Your task to perform on an android device: Play the last video I watched on Youtube Image 0: 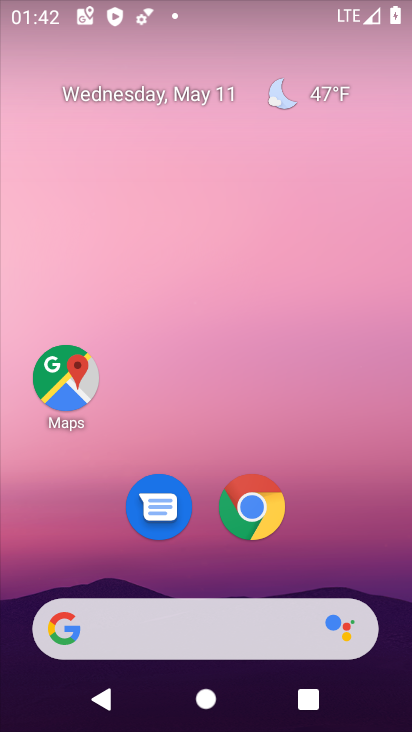
Step 0: drag from (327, 554) to (198, 3)
Your task to perform on an android device: Play the last video I watched on Youtube Image 1: 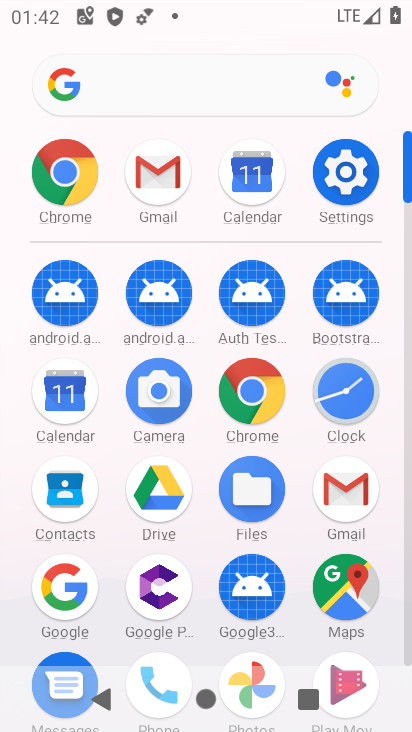
Step 1: drag from (279, 643) to (219, 284)
Your task to perform on an android device: Play the last video I watched on Youtube Image 2: 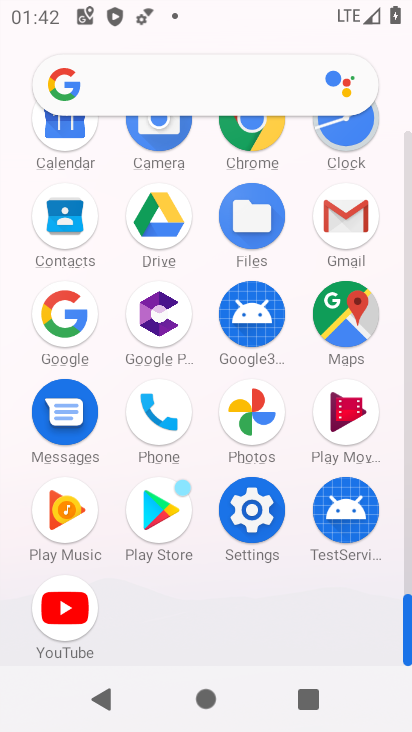
Step 2: click (60, 607)
Your task to perform on an android device: Play the last video I watched on Youtube Image 3: 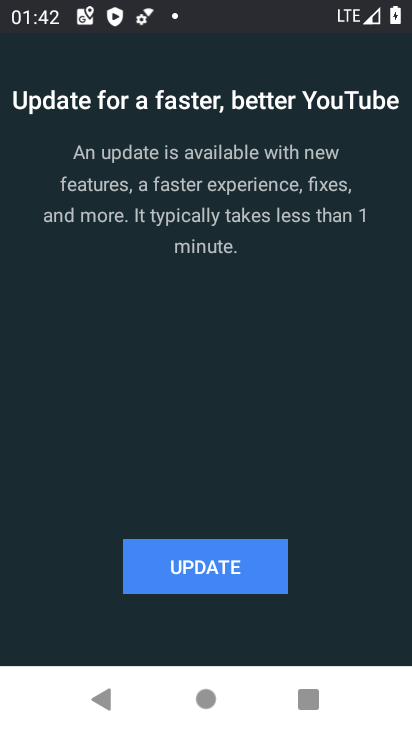
Step 3: click (214, 561)
Your task to perform on an android device: Play the last video I watched on Youtube Image 4: 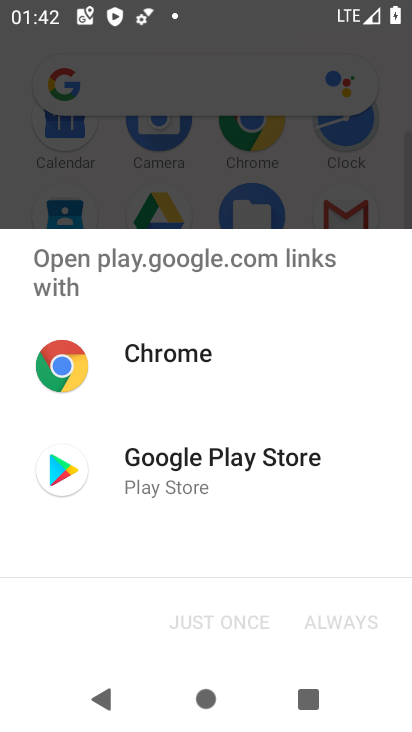
Step 4: click (171, 474)
Your task to perform on an android device: Play the last video I watched on Youtube Image 5: 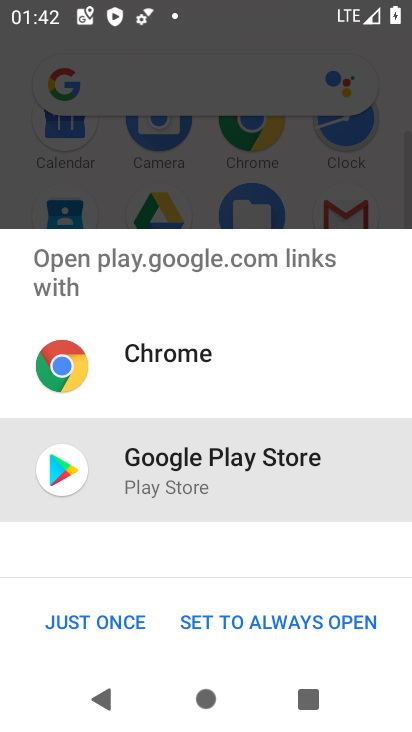
Step 5: click (106, 615)
Your task to perform on an android device: Play the last video I watched on Youtube Image 6: 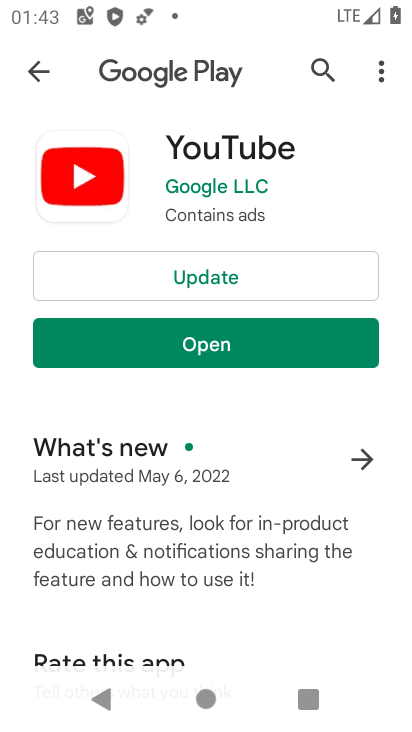
Step 6: click (205, 277)
Your task to perform on an android device: Play the last video I watched on Youtube Image 7: 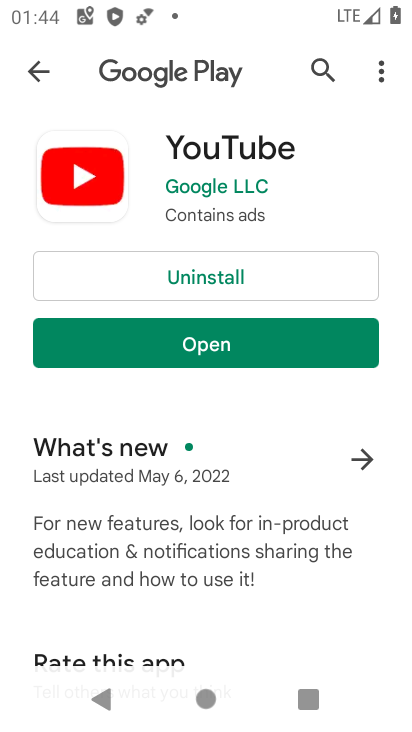
Step 7: click (224, 336)
Your task to perform on an android device: Play the last video I watched on Youtube Image 8: 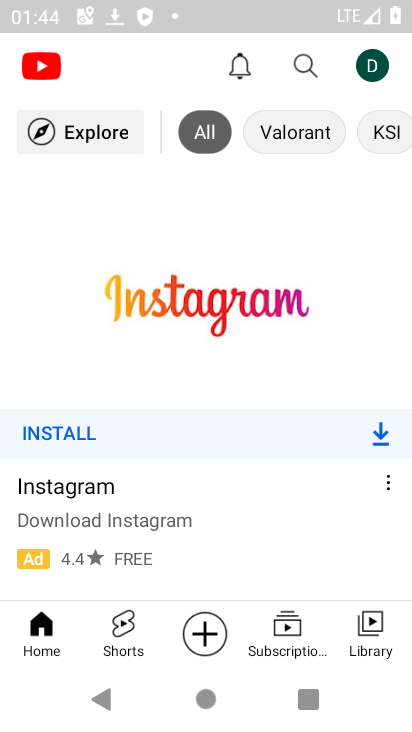
Step 8: click (362, 636)
Your task to perform on an android device: Play the last video I watched on Youtube Image 9: 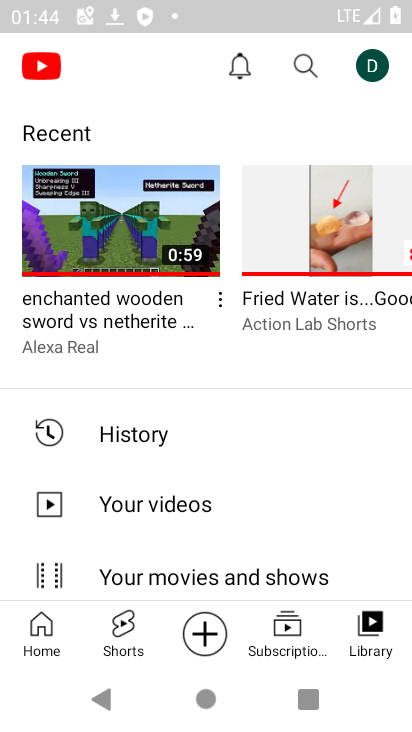
Step 9: click (137, 211)
Your task to perform on an android device: Play the last video I watched on Youtube Image 10: 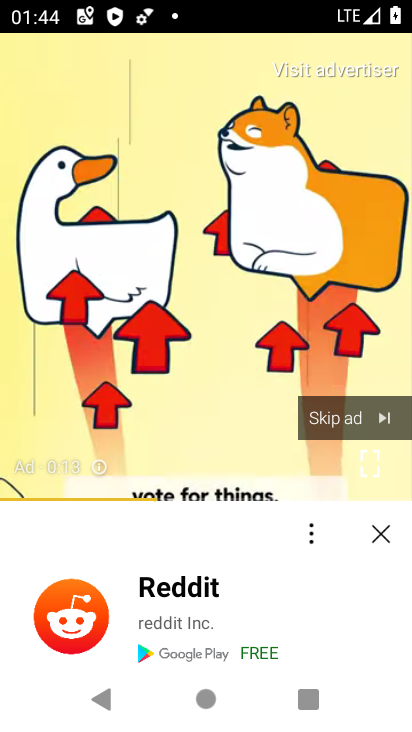
Step 10: click (334, 408)
Your task to perform on an android device: Play the last video I watched on Youtube Image 11: 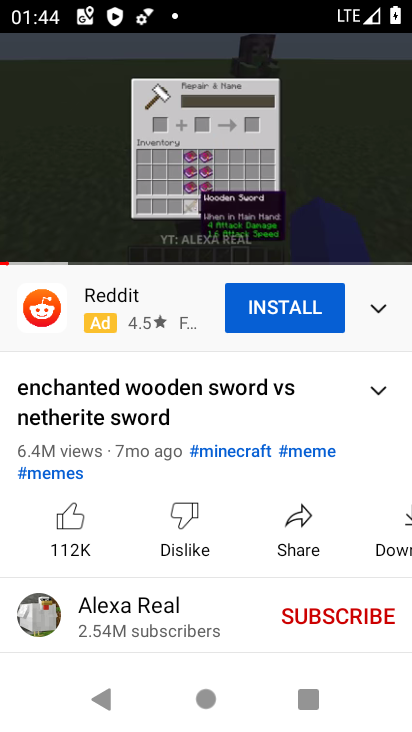
Step 11: click (219, 125)
Your task to perform on an android device: Play the last video I watched on Youtube Image 12: 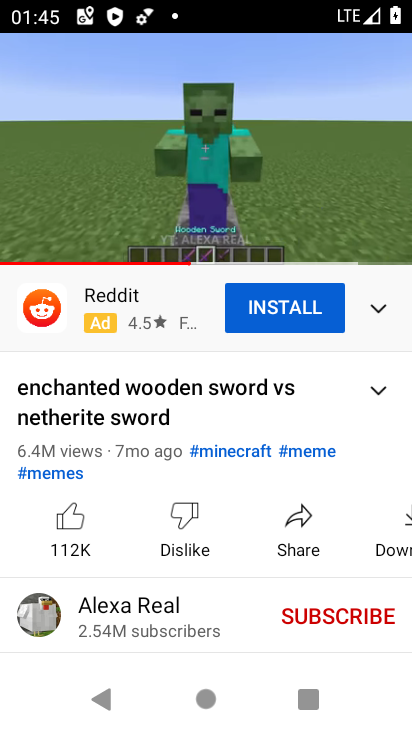
Step 12: task complete